Your task to perform on an android device: turn off sleep mode Image 0: 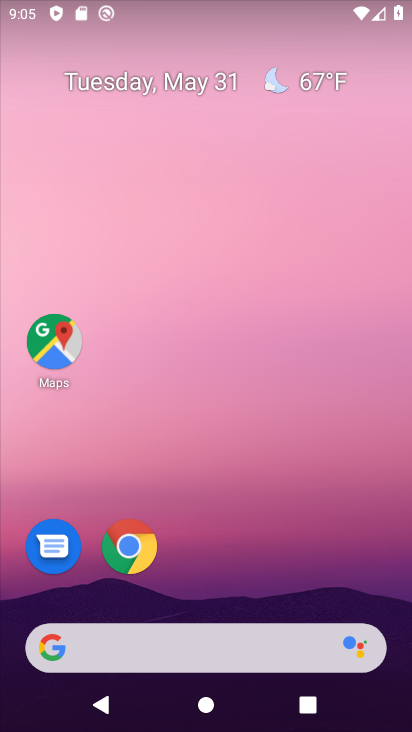
Step 0: drag from (214, 588) to (237, 160)
Your task to perform on an android device: turn off sleep mode Image 1: 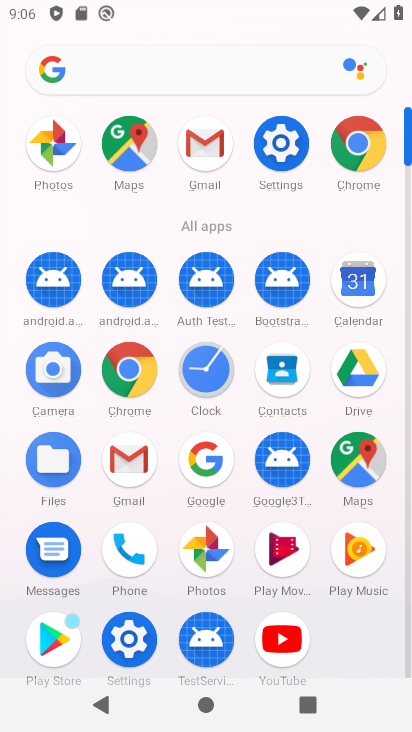
Step 1: click (294, 165)
Your task to perform on an android device: turn off sleep mode Image 2: 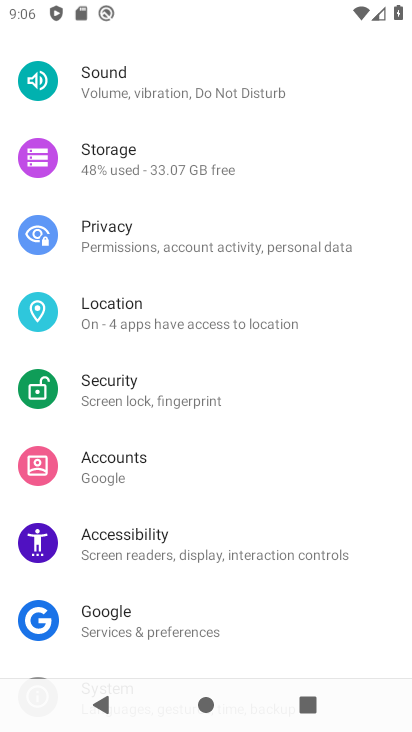
Step 2: drag from (264, 145) to (258, 474)
Your task to perform on an android device: turn off sleep mode Image 3: 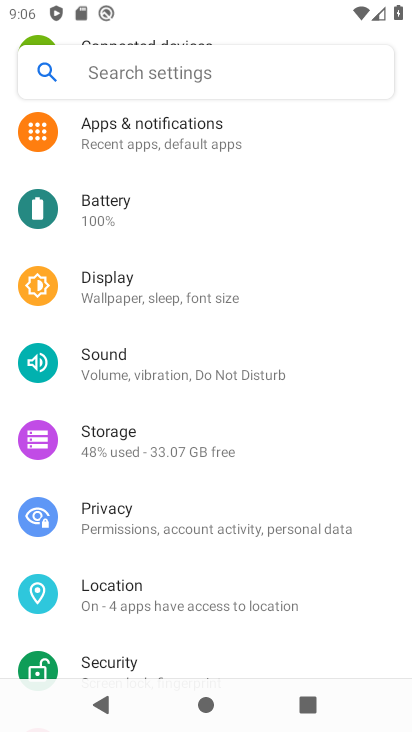
Step 3: click (189, 75)
Your task to perform on an android device: turn off sleep mode Image 4: 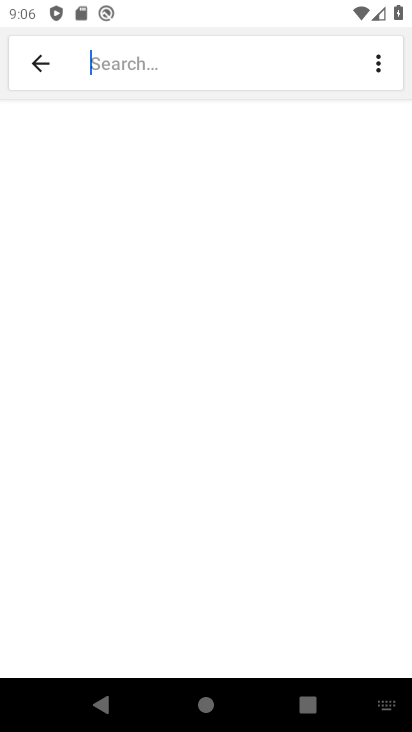
Step 4: type "sleep mode"
Your task to perform on an android device: turn off sleep mode Image 5: 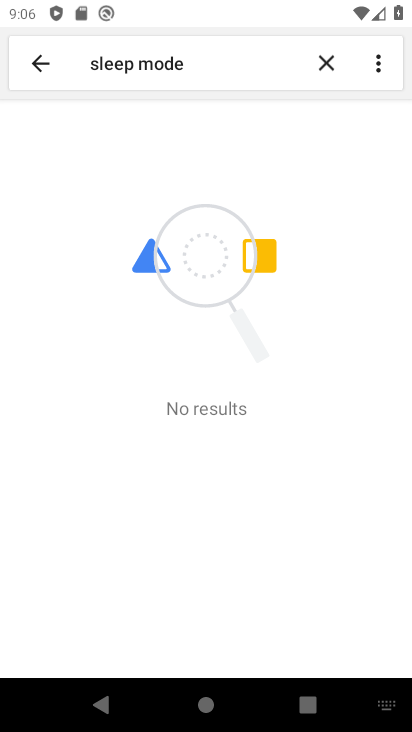
Step 5: click (220, 260)
Your task to perform on an android device: turn off sleep mode Image 6: 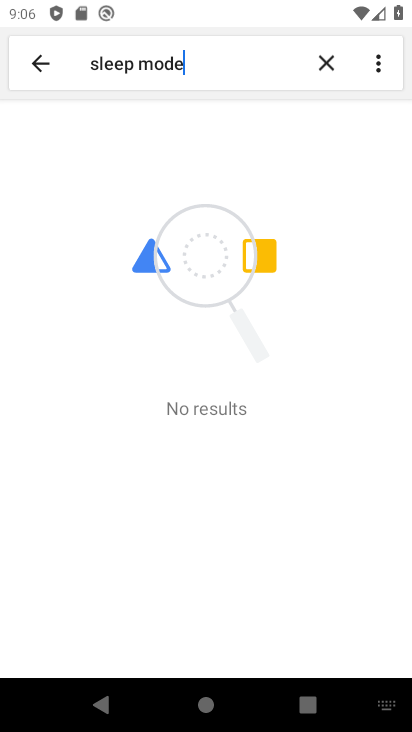
Step 6: task complete